Your task to perform on an android device: Open Google Maps and go to "Timeline" Image 0: 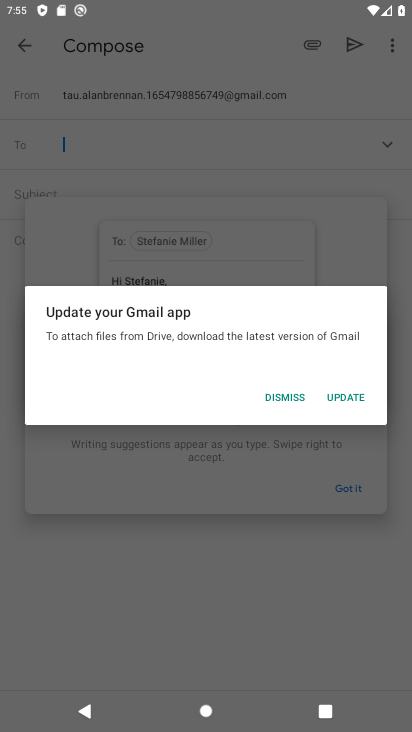
Step 0: press home button
Your task to perform on an android device: Open Google Maps and go to "Timeline" Image 1: 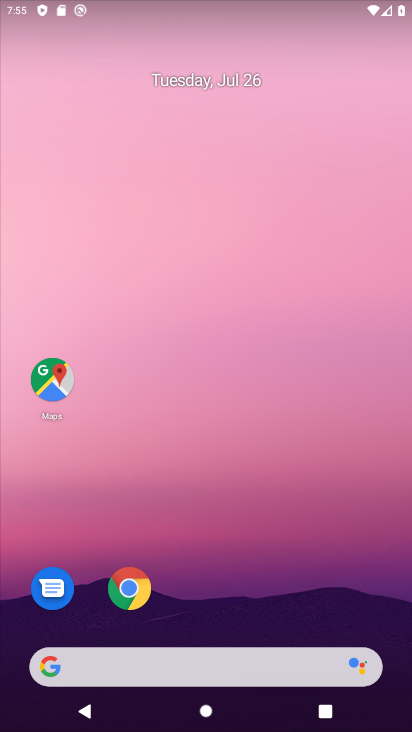
Step 1: click (36, 383)
Your task to perform on an android device: Open Google Maps and go to "Timeline" Image 2: 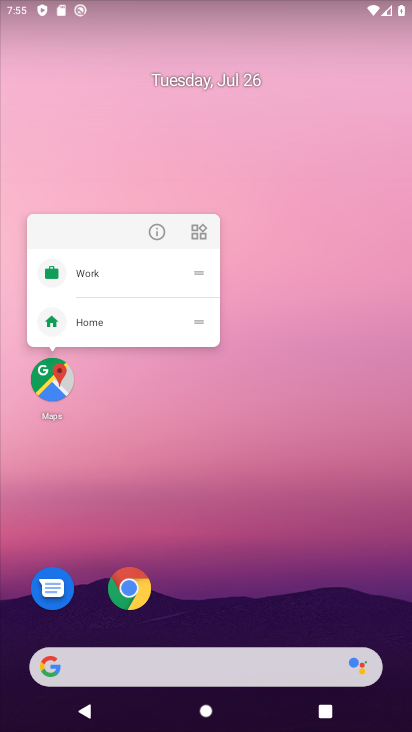
Step 2: click (47, 378)
Your task to perform on an android device: Open Google Maps and go to "Timeline" Image 3: 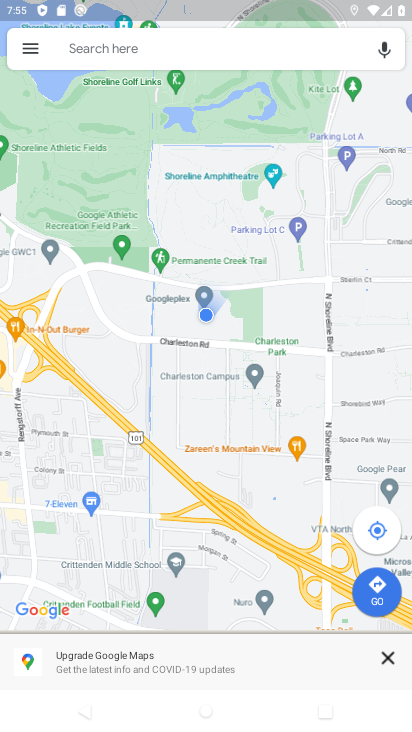
Step 3: click (42, 37)
Your task to perform on an android device: Open Google Maps and go to "Timeline" Image 4: 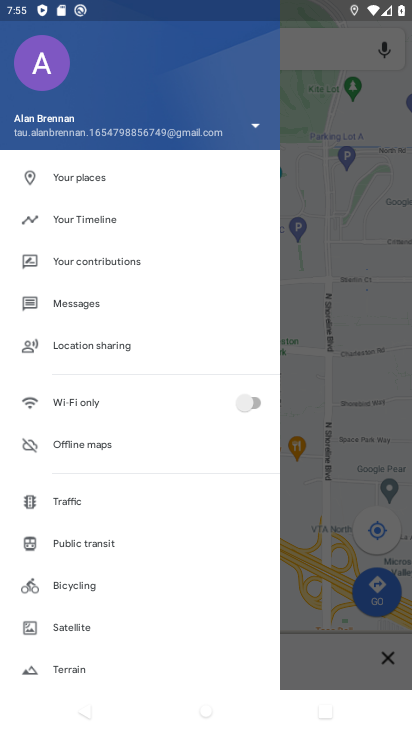
Step 4: click (64, 221)
Your task to perform on an android device: Open Google Maps and go to "Timeline" Image 5: 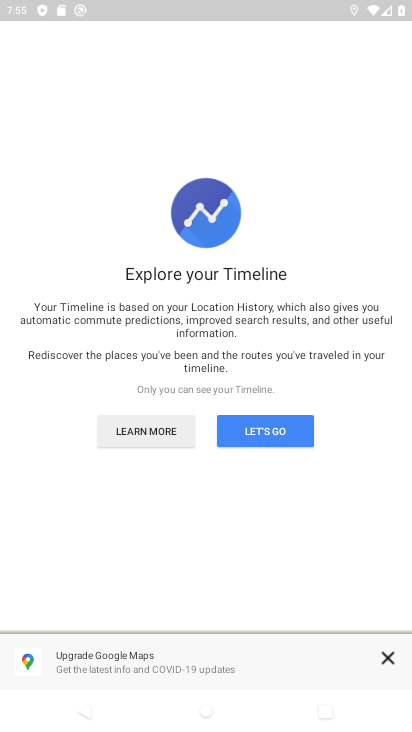
Step 5: click (262, 422)
Your task to perform on an android device: Open Google Maps and go to "Timeline" Image 6: 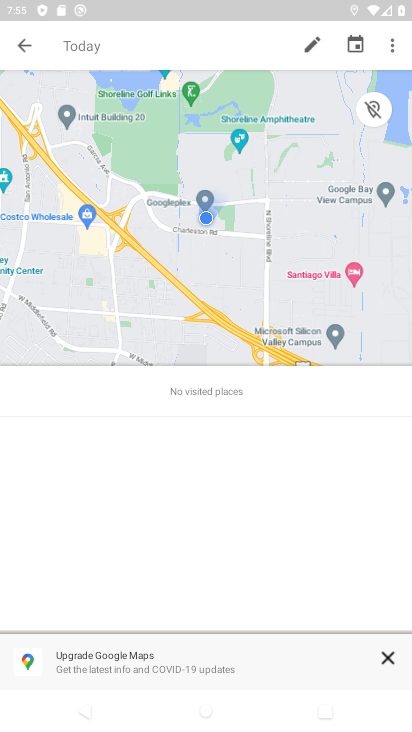
Step 6: task complete